Your task to perform on an android device: What's on my calendar today? Image 0: 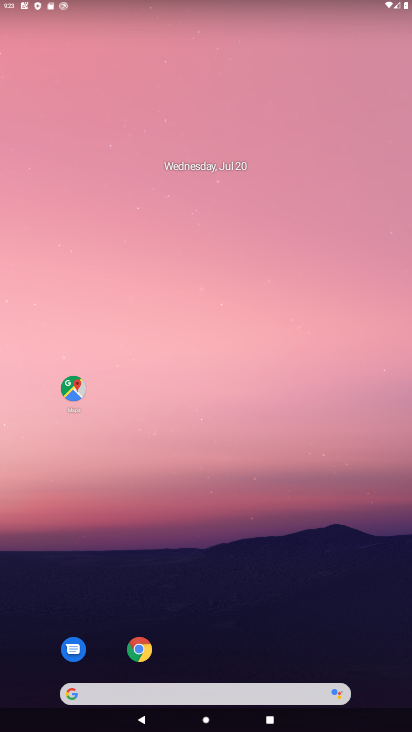
Step 0: drag from (228, 626) to (262, 189)
Your task to perform on an android device: What's on my calendar today? Image 1: 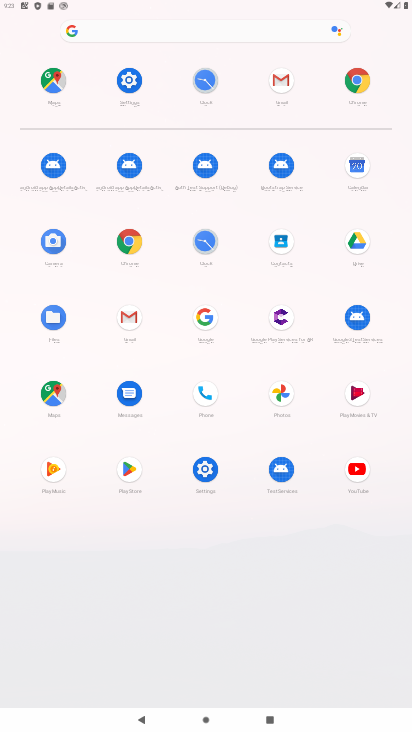
Step 1: click (340, 179)
Your task to perform on an android device: What's on my calendar today? Image 2: 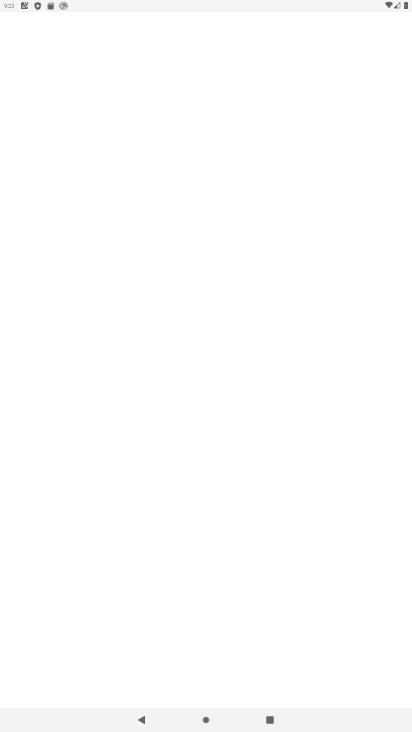
Step 2: task complete